Your task to perform on an android device: Search for Italian restaurants on Maps Image 0: 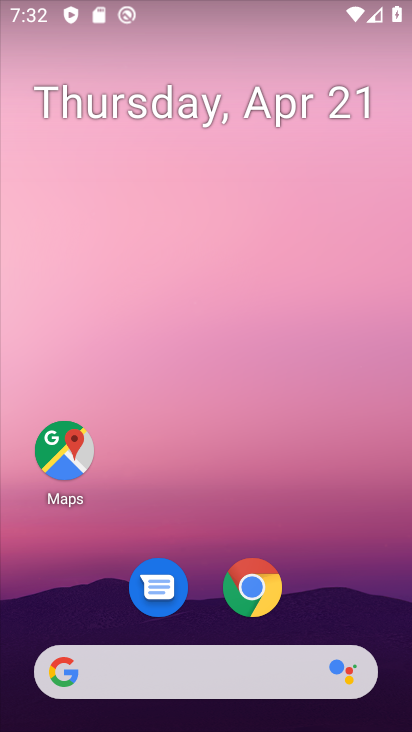
Step 0: click (44, 438)
Your task to perform on an android device: Search for Italian restaurants on Maps Image 1: 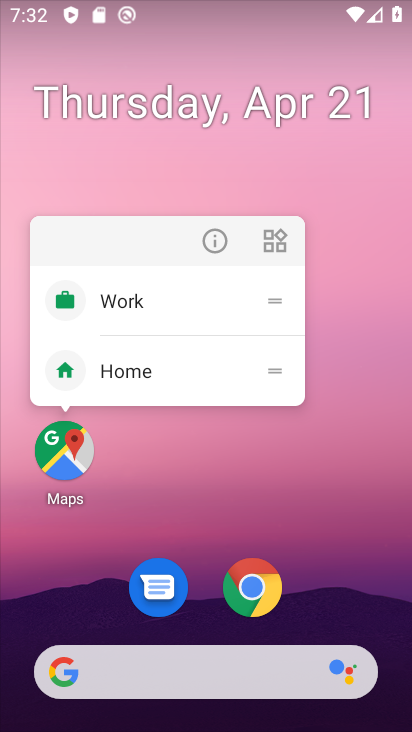
Step 1: click (59, 452)
Your task to perform on an android device: Search for Italian restaurants on Maps Image 2: 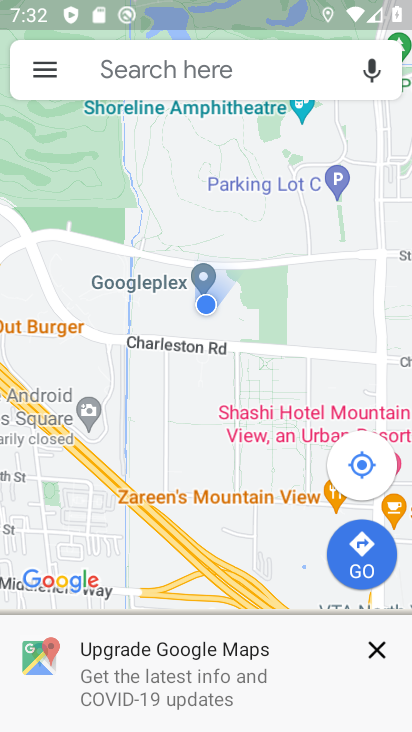
Step 2: click (117, 73)
Your task to perform on an android device: Search for Italian restaurants on Maps Image 3: 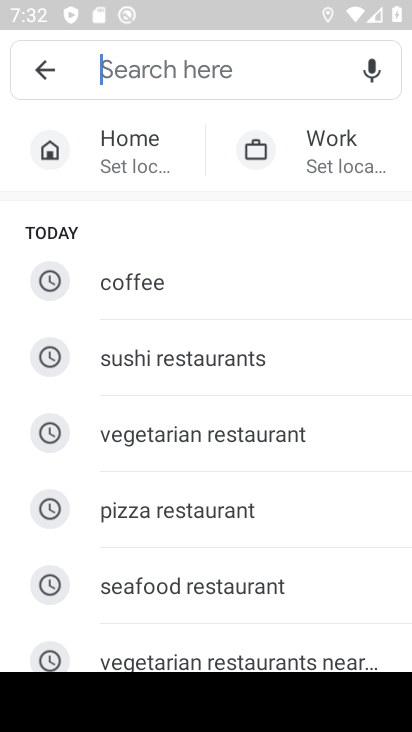
Step 3: type "Italian restaurants"
Your task to perform on an android device: Search for Italian restaurants on Maps Image 4: 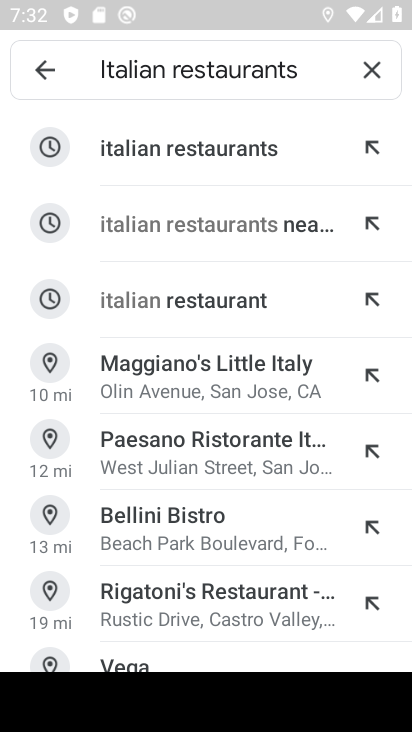
Step 4: click (119, 150)
Your task to perform on an android device: Search for Italian restaurants on Maps Image 5: 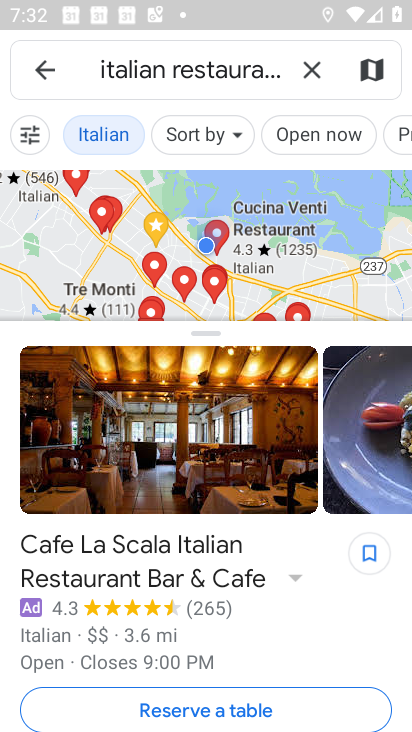
Step 5: task complete